Your task to perform on an android device: Open Yahoo.com Image 0: 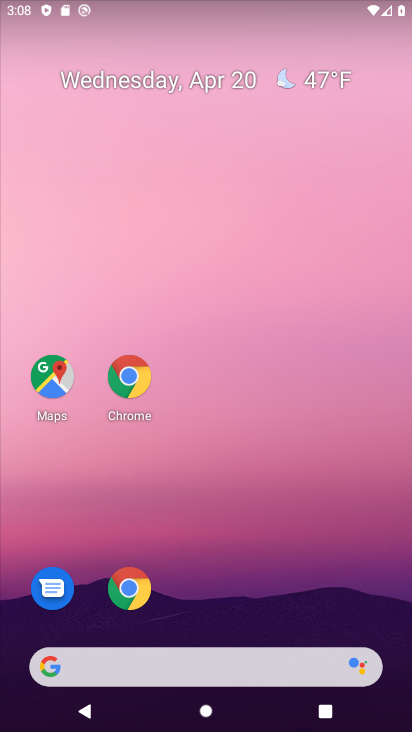
Step 0: drag from (235, 619) to (242, 21)
Your task to perform on an android device: Open Yahoo.com Image 1: 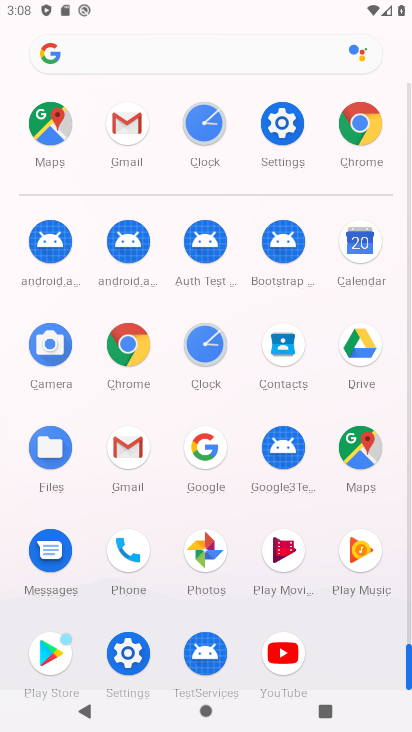
Step 1: click (119, 353)
Your task to perform on an android device: Open Yahoo.com Image 2: 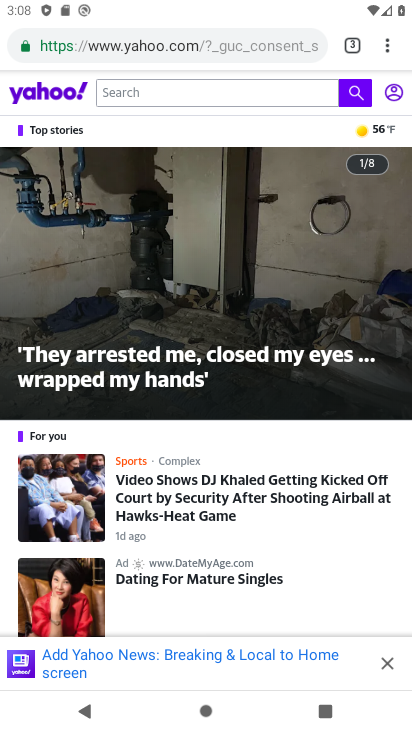
Step 2: task complete